Your task to perform on an android device: Go to internet settings Image 0: 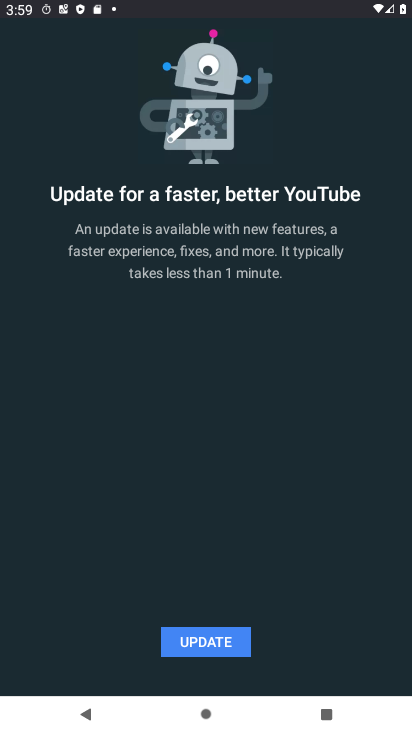
Step 0: press home button
Your task to perform on an android device: Go to internet settings Image 1: 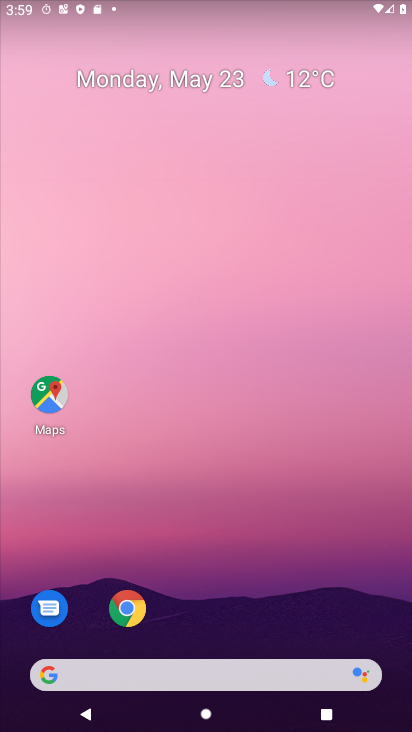
Step 1: drag from (295, 565) to (210, 5)
Your task to perform on an android device: Go to internet settings Image 2: 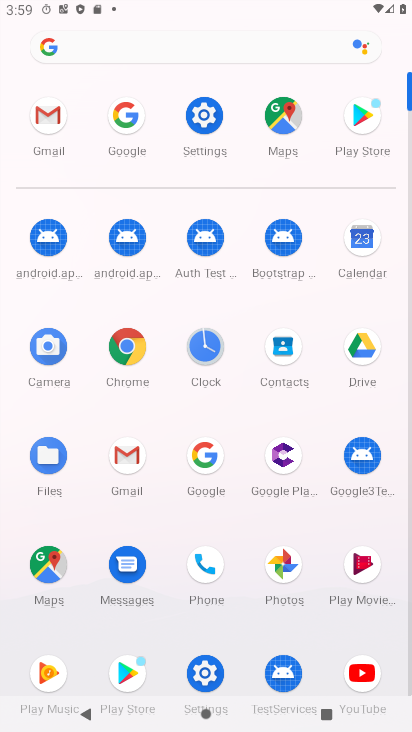
Step 2: click (216, 118)
Your task to perform on an android device: Go to internet settings Image 3: 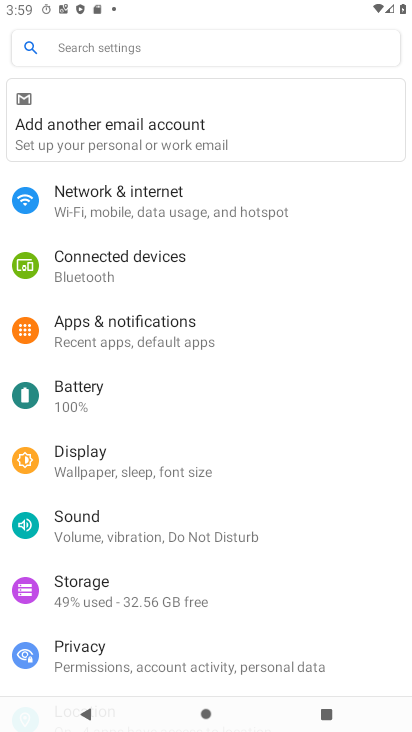
Step 3: click (199, 214)
Your task to perform on an android device: Go to internet settings Image 4: 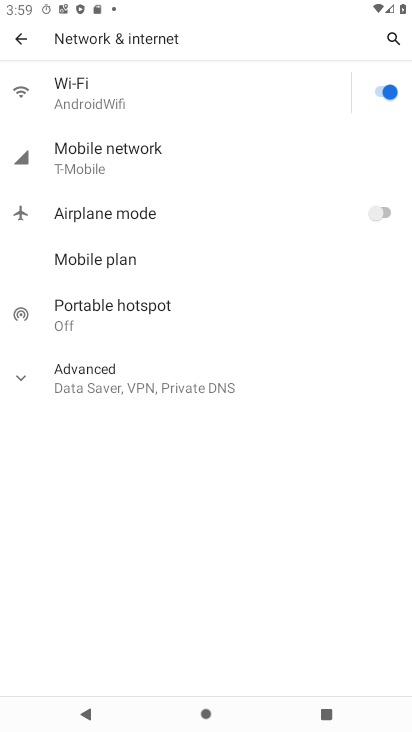
Step 4: task complete